Your task to perform on an android device: find photos in the google photos app Image 0: 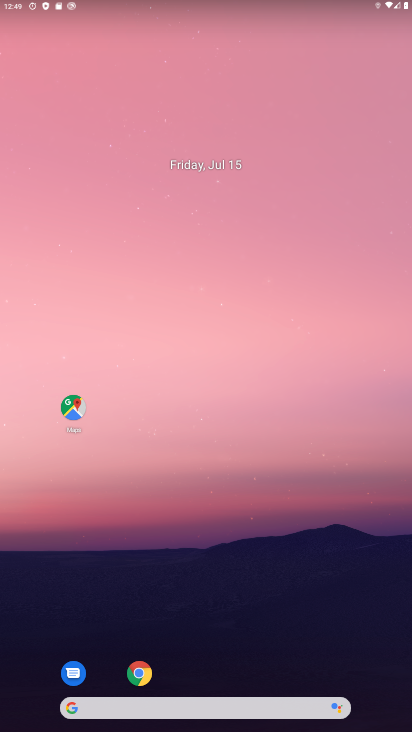
Step 0: drag from (322, 622) to (11, 498)
Your task to perform on an android device: find photos in the google photos app Image 1: 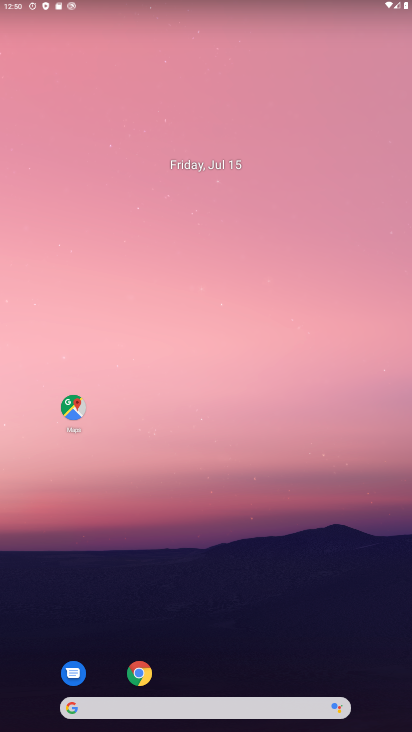
Step 1: drag from (223, 669) to (167, 22)
Your task to perform on an android device: find photos in the google photos app Image 2: 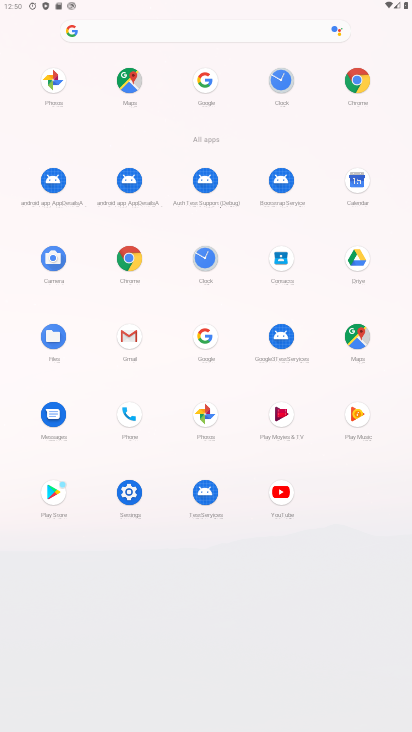
Step 2: click (203, 416)
Your task to perform on an android device: find photos in the google photos app Image 3: 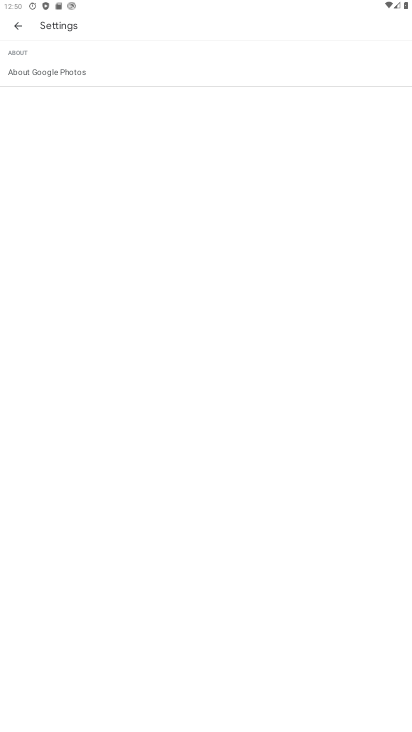
Step 3: click (19, 28)
Your task to perform on an android device: find photos in the google photos app Image 4: 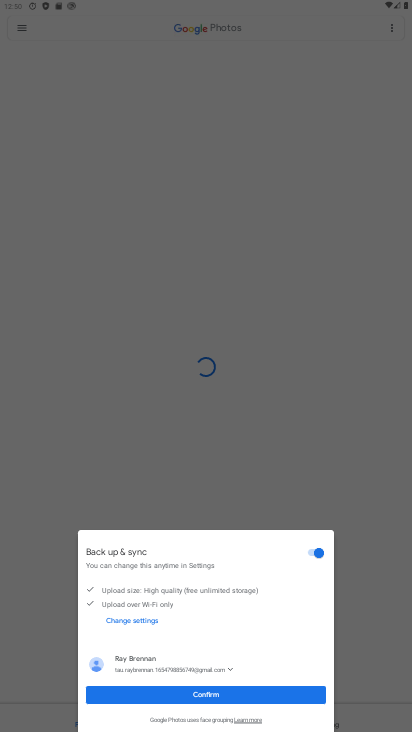
Step 4: click (217, 694)
Your task to perform on an android device: find photos in the google photos app Image 5: 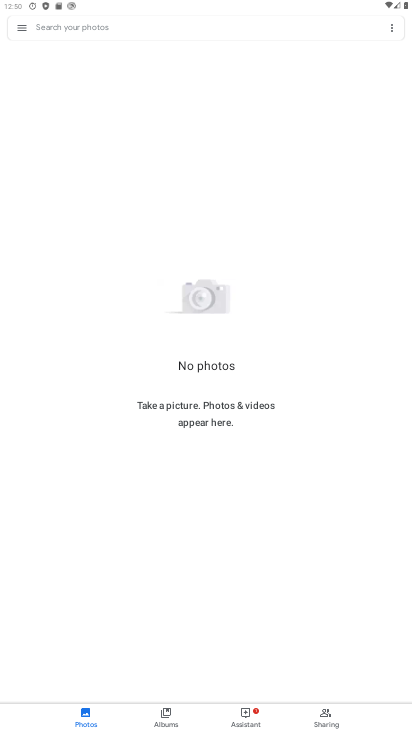
Step 5: task complete